Your task to perform on an android device: Open the calendar and show me this week's events? Image 0: 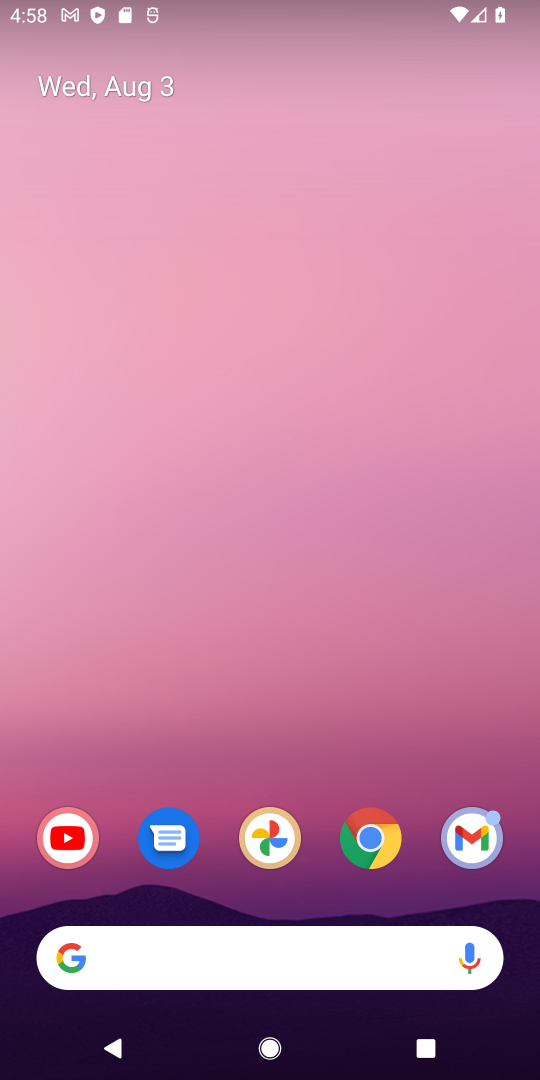
Step 0: drag from (260, 738) to (303, 0)
Your task to perform on an android device: Open the calendar and show me this week's events? Image 1: 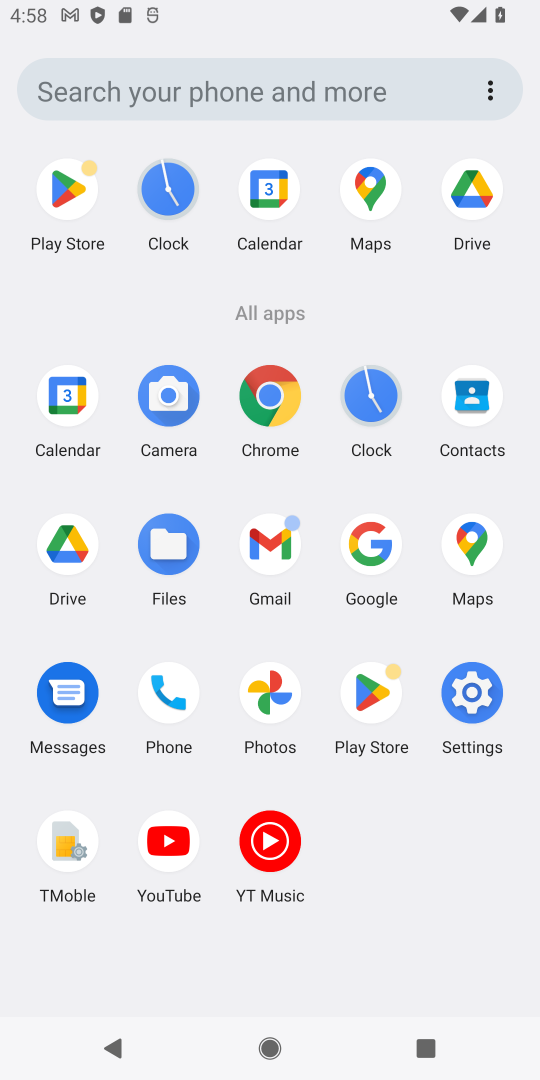
Step 1: click (68, 398)
Your task to perform on an android device: Open the calendar and show me this week's events? Image 2: 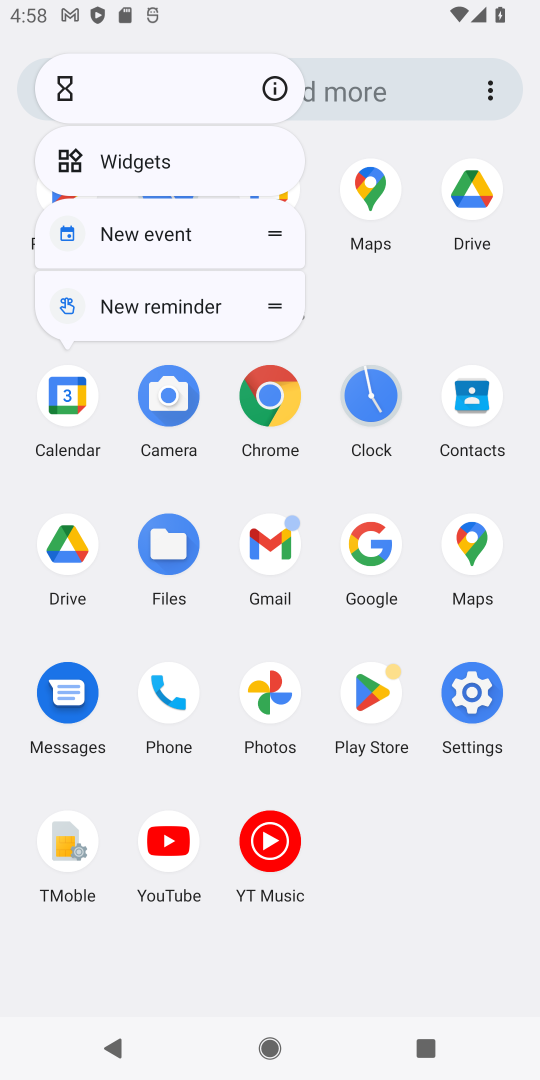
Step 2: click (68, 405)
Your task to perform on an android device: Open the calendar and show me this week's events? Image 3: 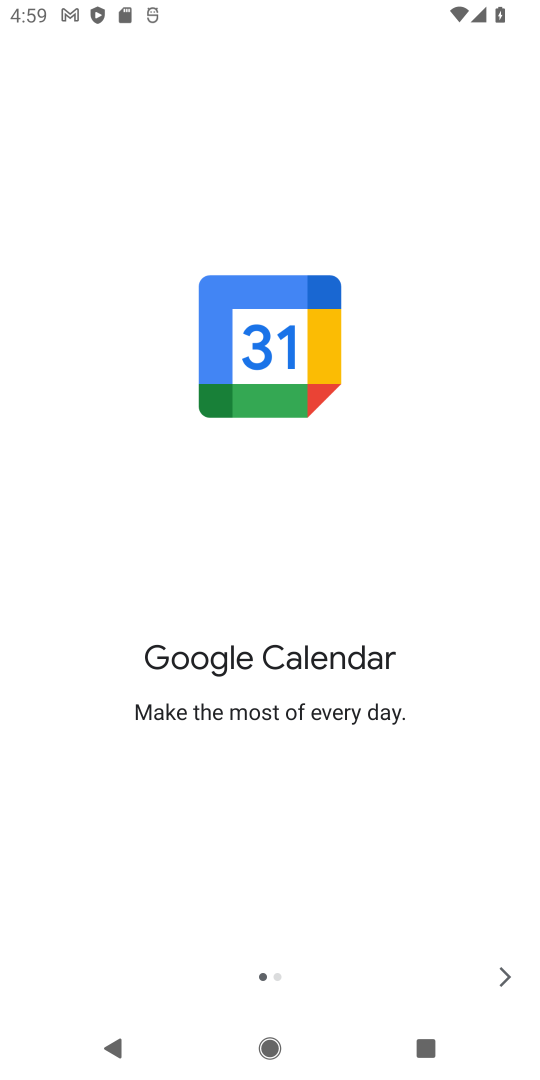
Step 3: click (501, 975)
Your task to perform on an android device: Open the calendar and show me this week's events? Image 4: 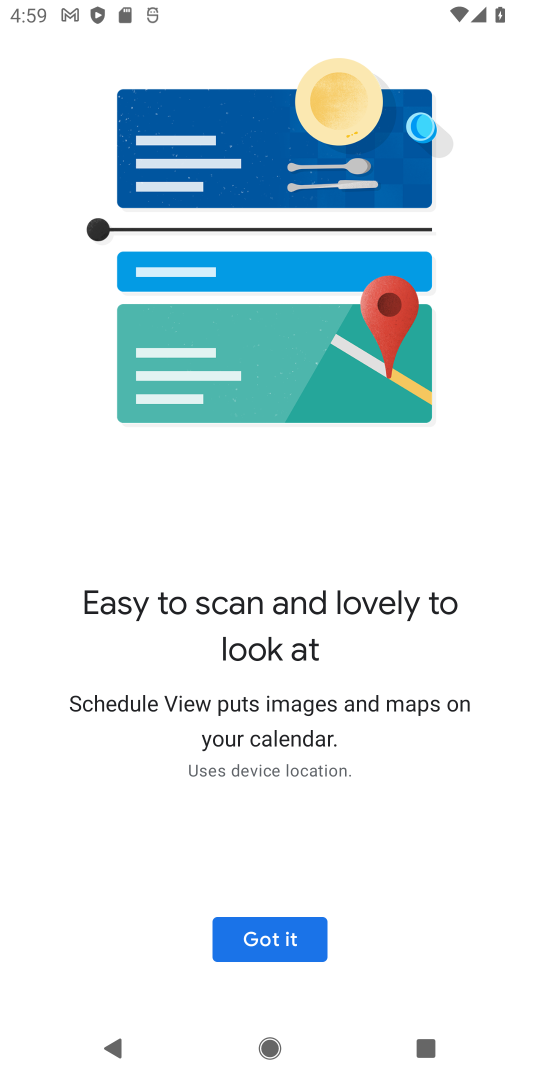
Step 4: click (308, 935)
Your task to perform on an android device: Open the calendar and show me this week's events? Image 5: 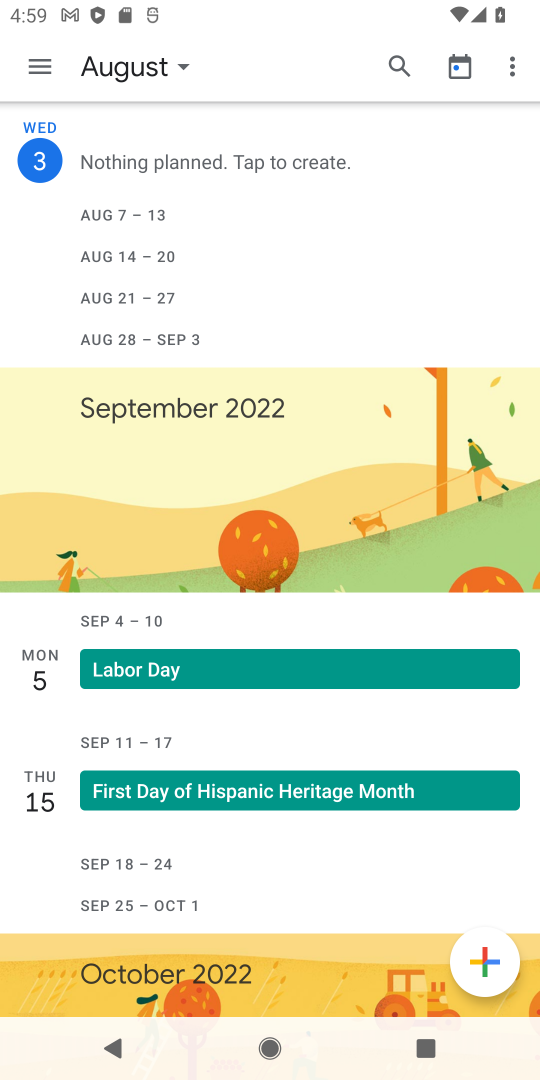
Step 5: click (44, 63)
Your task to perform on an android device: Open the calendar and show me this week's events? Image 6: 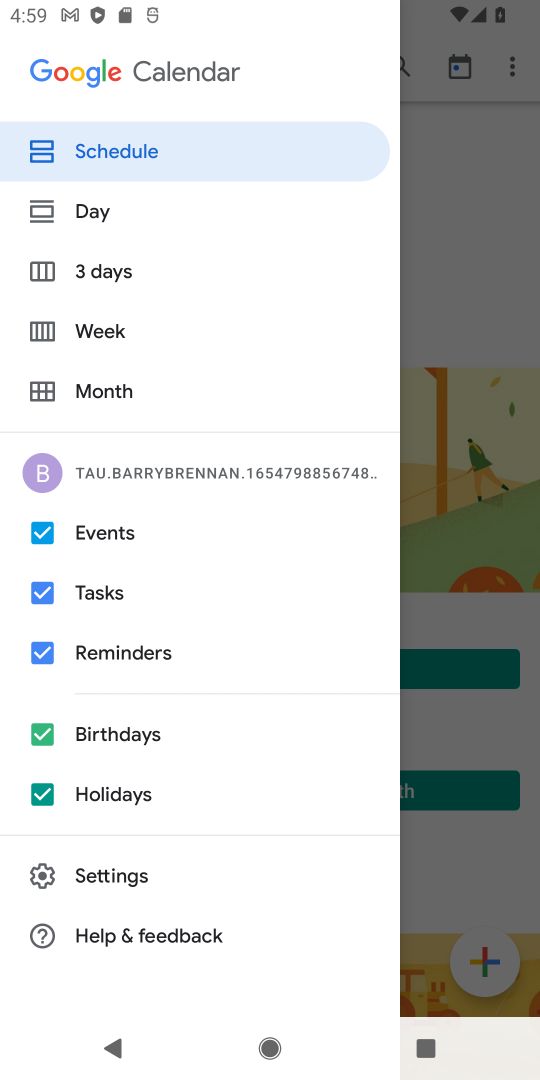
Step 6: click (49, 329)
Your task to perform on an android device: Open the calendar and show me this week's events? Image 7: 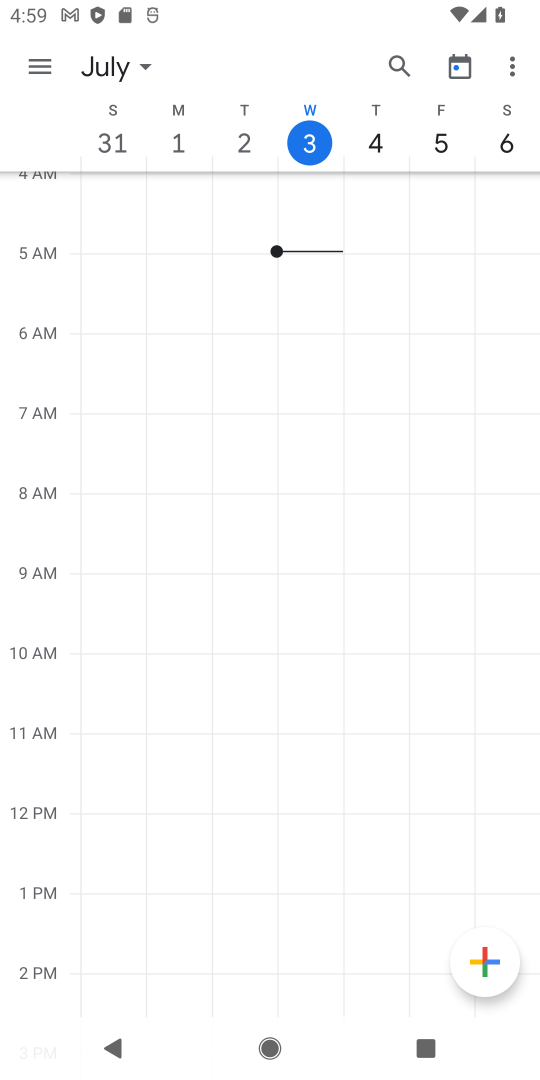
Step 7: task complete